Your task to perform on an android device: Check the weather Image 0: 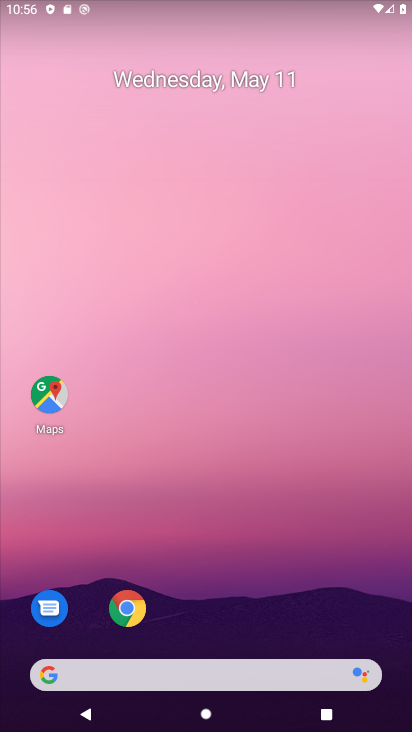
Step 0: drag from (76, 176) to (400, 293)
Your task to perform on an android device: Check the weather Image 1: 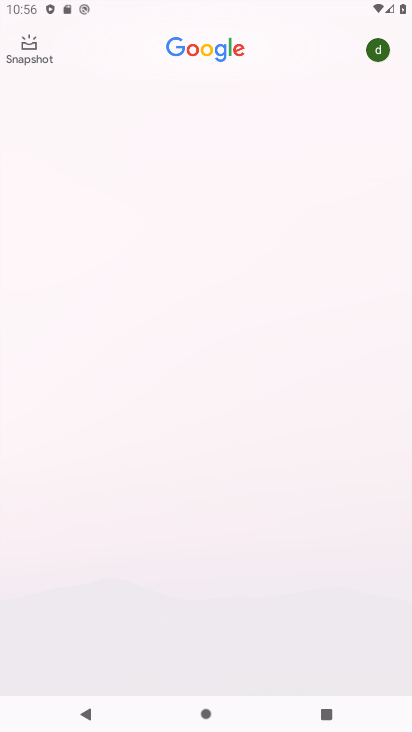
Step 1: drag from (20, 256) to (383, 558)
Your task to perform on an android device: Check the weather Image 2: 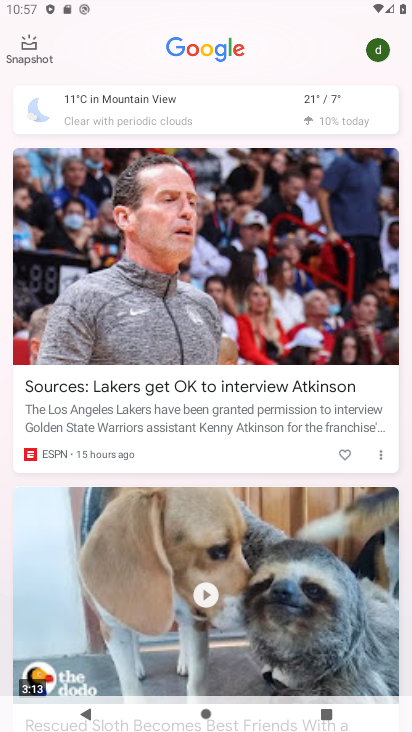
Step 2: click (200, 96)
Your task to perform on an android device: Check the weather Image 3: 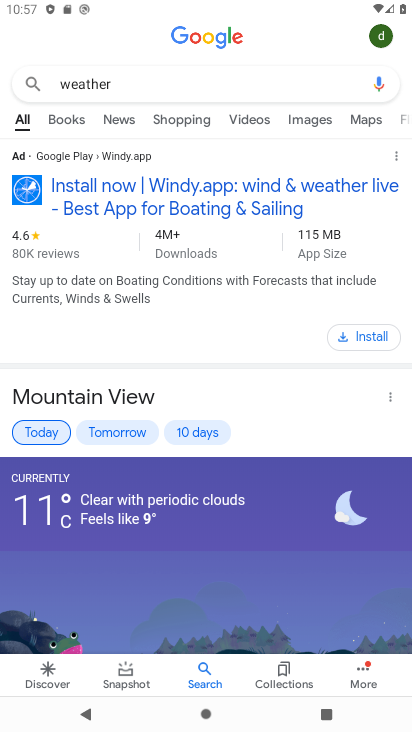
Step 3: click (142, 69)
Your task to perform on an android device: Check the weather Image 4: 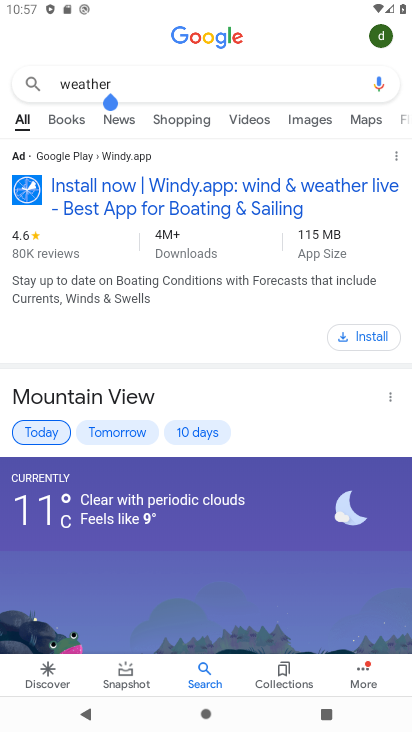
Step 4: click (137, 73)
Your task to perform on an android device: Check the weather Image 5: 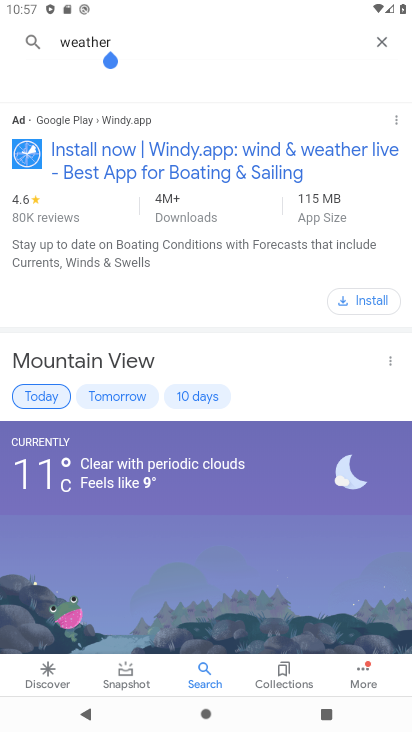
Step 5: click (134, 72)
Your task to perform on an android device: Check the weather Image 6: 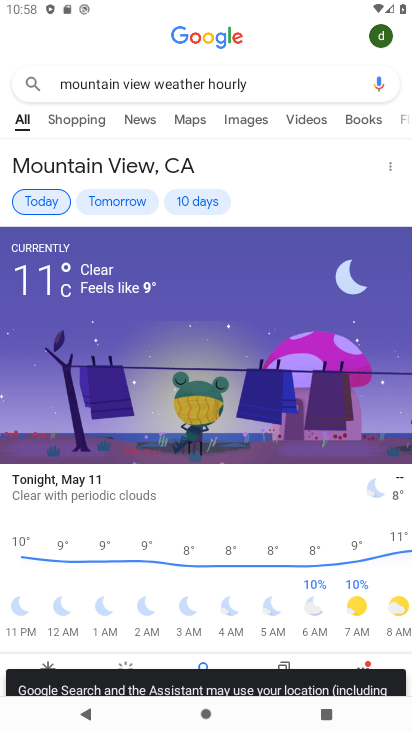
Step 6: task complete